Your task to perform on an android device: change text size in settings app Image 0: 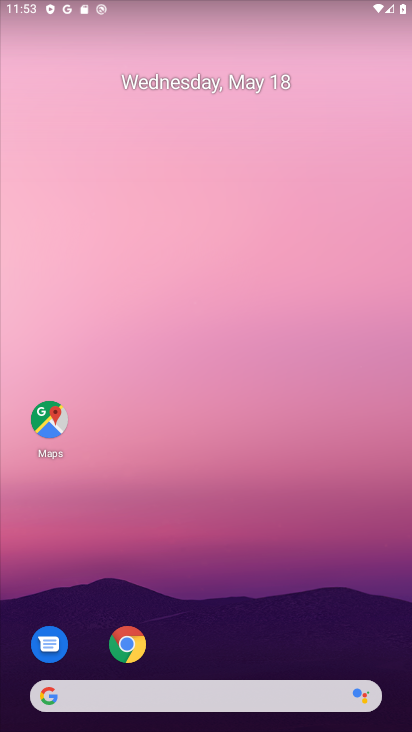
Step 0: drag from (323, 632) to (323, 154)
Your task to perform on an android device: change text size in settings app Image 1: 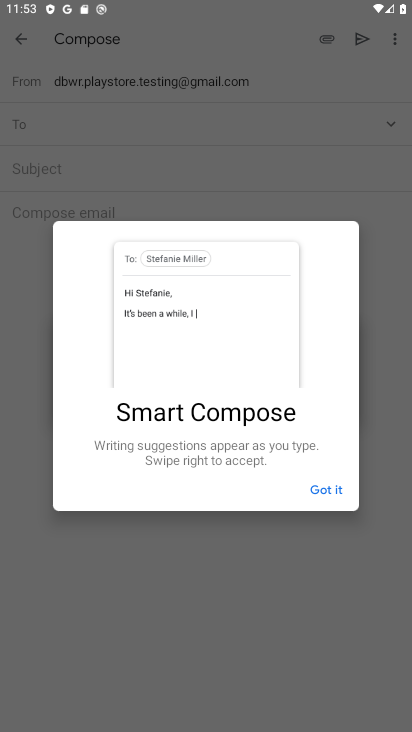
Step 1: press home button
Your task to perform on an android device: change text size in settings app Image 2: 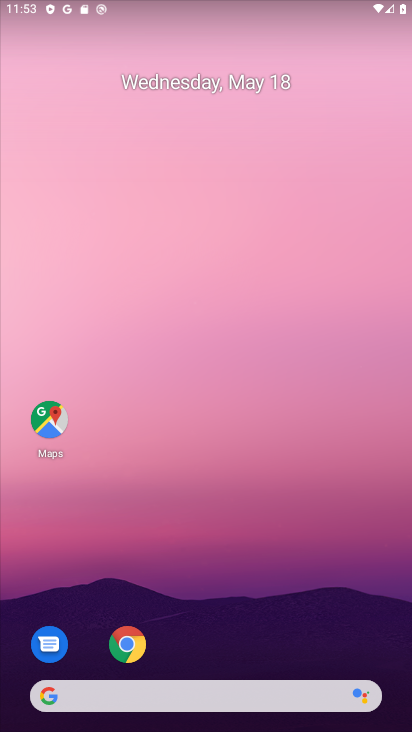
Step 2: drag from (380, 618) to (377, 220)
Your task to perform on an android device: change text size in settings app Image 3: 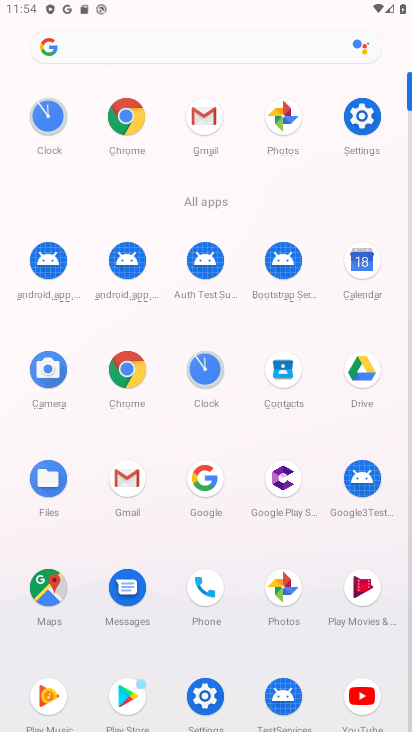
Step 3: click (205, 690)
Your task to perform on an android device: change text size in settings app Image 4: 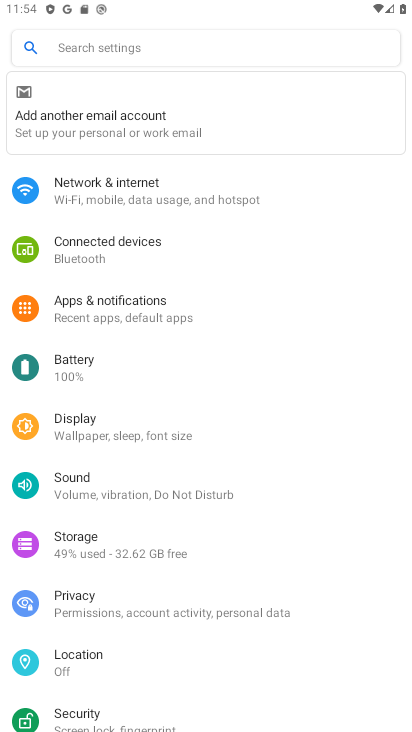
Step 4: click (81, 419)
Your task to perform on an android device: change text size in settings app Image 5: 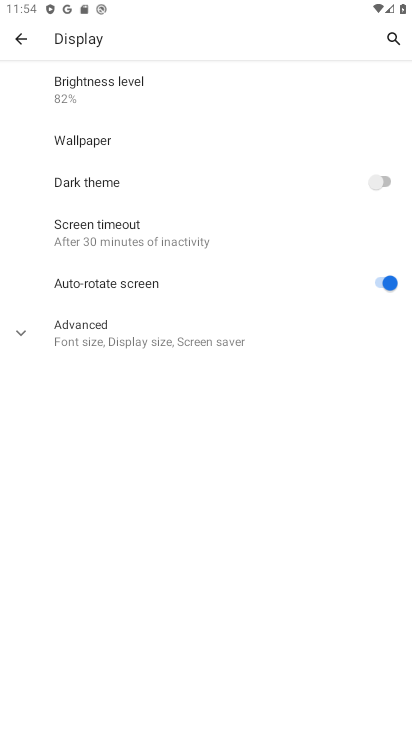
Step 5: click (108, 346)
Your task to perform on an android device: change text size in settings app Image 6: 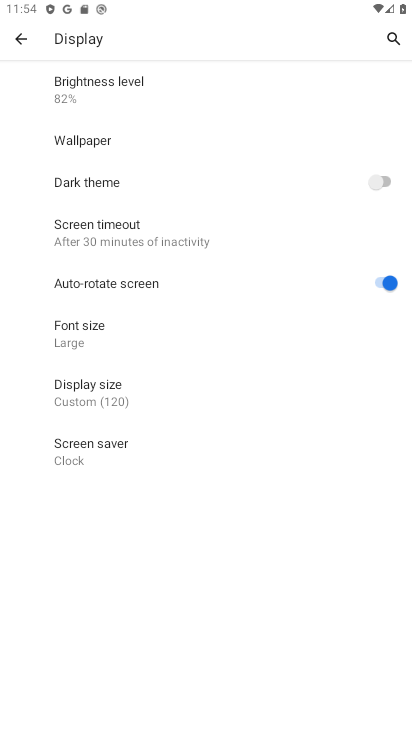
Step 6: click (105, 337)
Your task to perform on an android device: change text size in settings app Image 7: 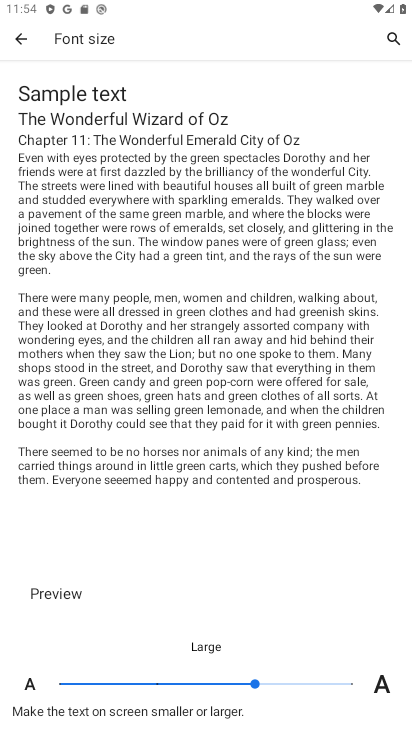
Step 7: click (31, 682)
Your task to perform on an android device: change text size in settings app Image 8: 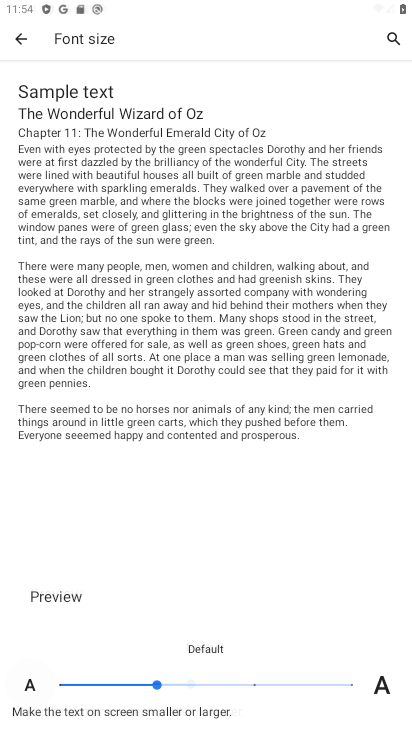
Step 8: click (34, 679)
Your task to perform on an android device: change text size in settings app Image 9: 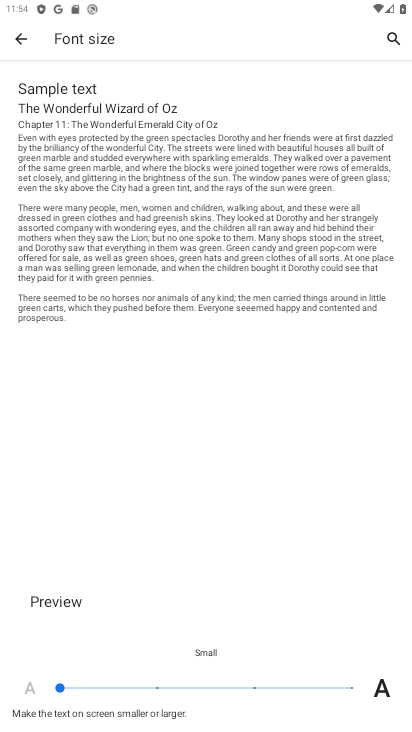
Step 9: task complete